Your task to perform on an android device: What's the news in Jamaica? Image 0: 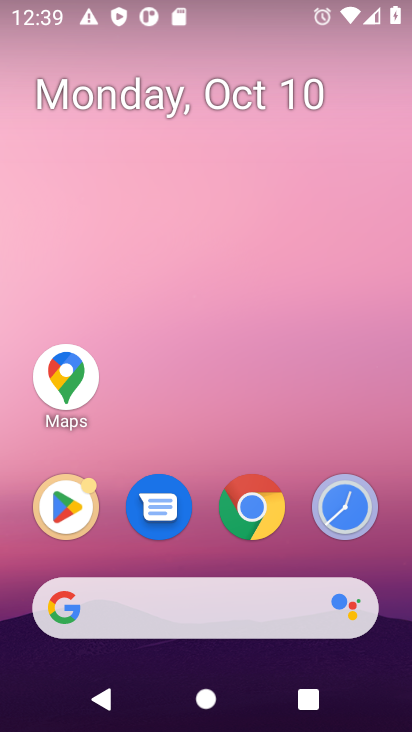
Step 0: press home button
Your task to perform on an android device: What's the news in Jamaica? Image 1: 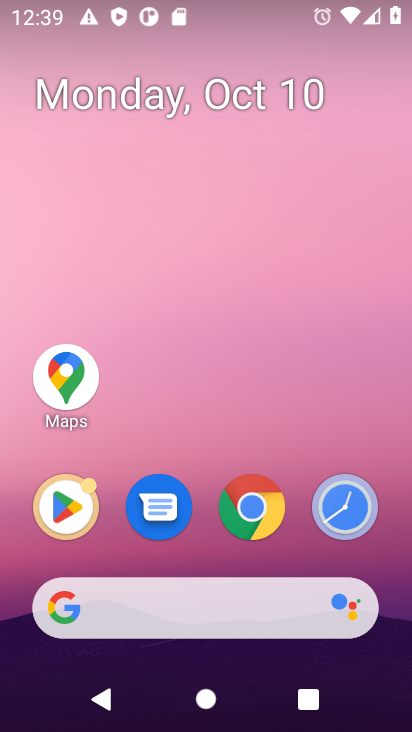
Step 1: click (263, 591)
Your task to perform on an android device: What's the news in Jamaica? Image 2: 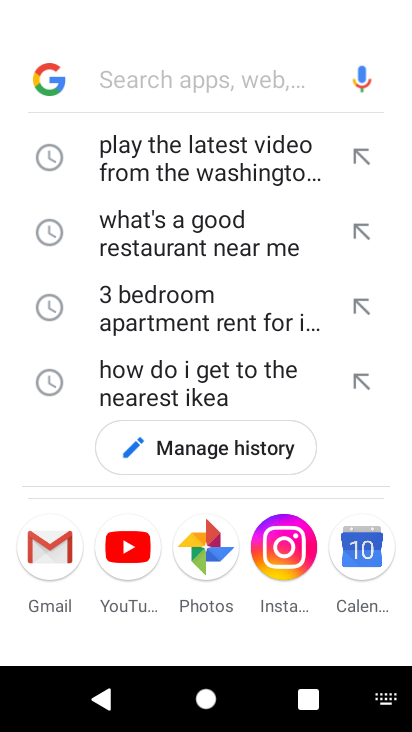
Step 2: type "What's the news in Jamaica?"
Your task to perform on an android device: What's the news in Jamaica? Image 3: 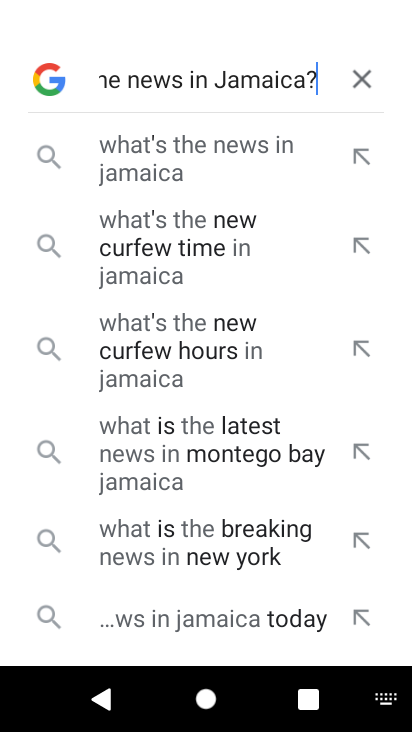
Step 3: press enter
Your task to perform on an android device: What's the news in Jamaica? Image 4: 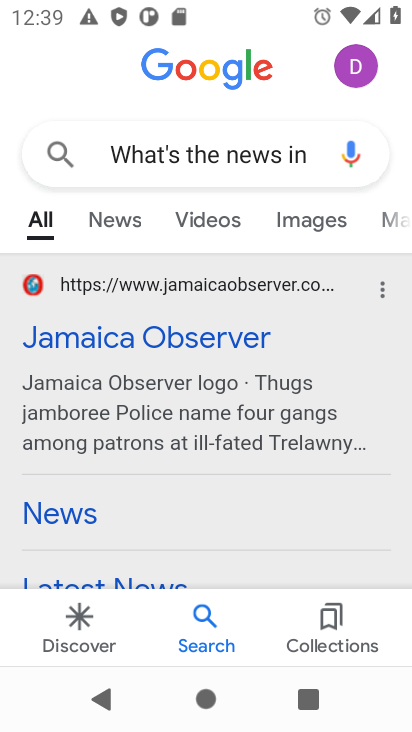
Step 4: click (210, 339)
Your task to perform on an android device: What's the news in Jamaica? Image 5: 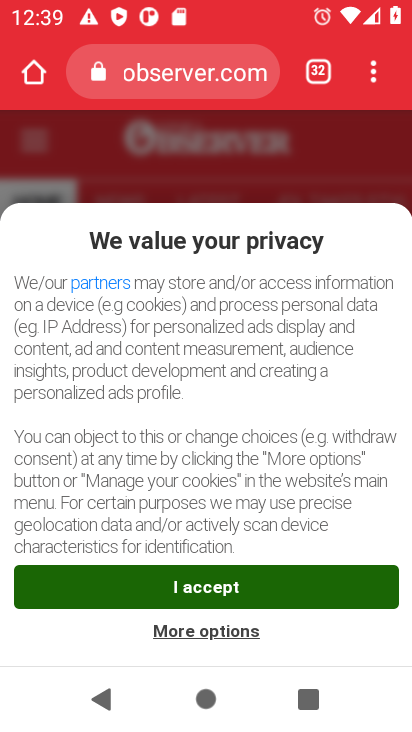
Step 5: click (287, 588)
Your task to perform on an android device: What's the news in Jamaica? Image 6: 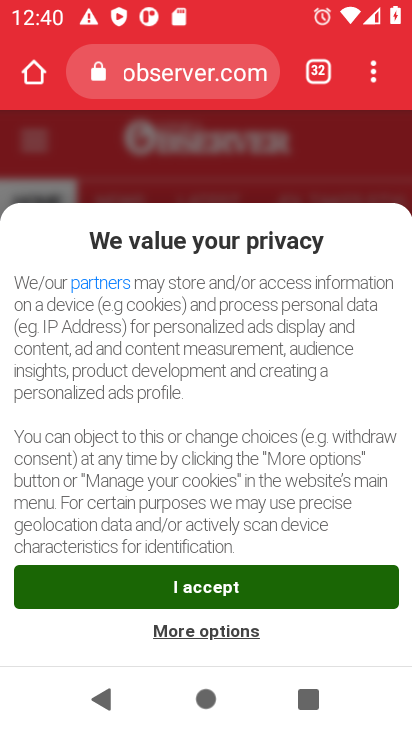
Step 6: click (274, 584)
Your task to perform on an android device: What's the news in Jamaica? Image 7: 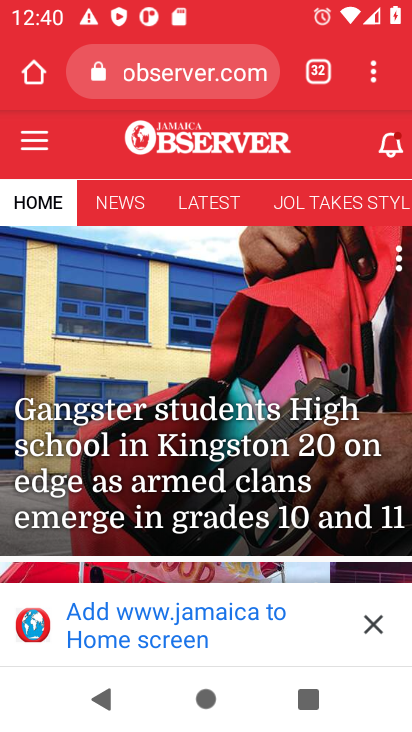
Step 7: task complete